Your task to perform on an android device: Show me recent news Image 0: 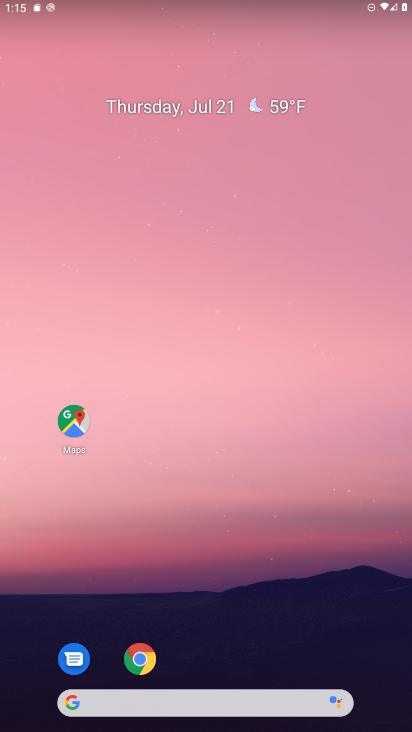
Step 0: press home button
Your task to perform on an android device: Show me recent news Image 1: 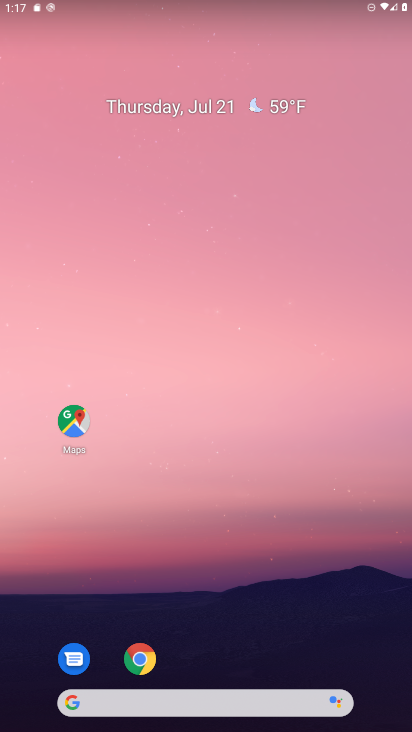
Step 1: click (184, 719)
Your task to perform on an android device: Show me recent news Image 2: 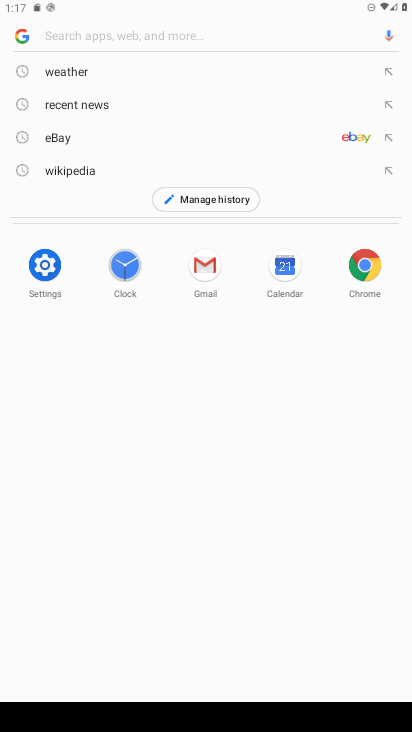
Step 2: click (100, 101)
Your task to perform on an android device: Show me recent news Image 3: 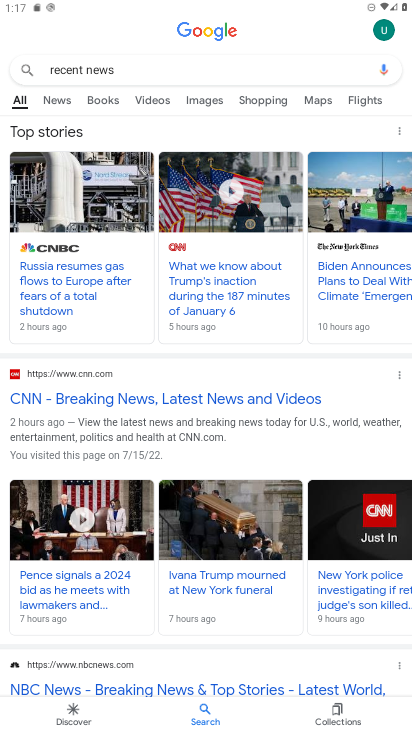
Step 3: task complete